Your task to perform on an android device: find which apps use the phone's location Image 0: 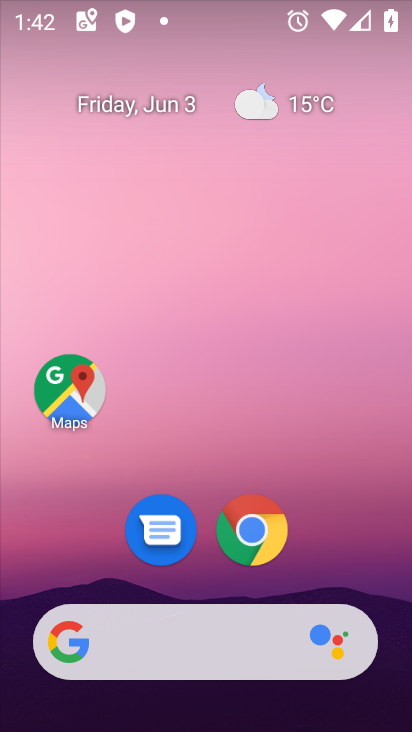
Step 0: drag from (362, 574) to (301, 112)
Your task to perform on an android device: find which apps use the phone's location Image 1: 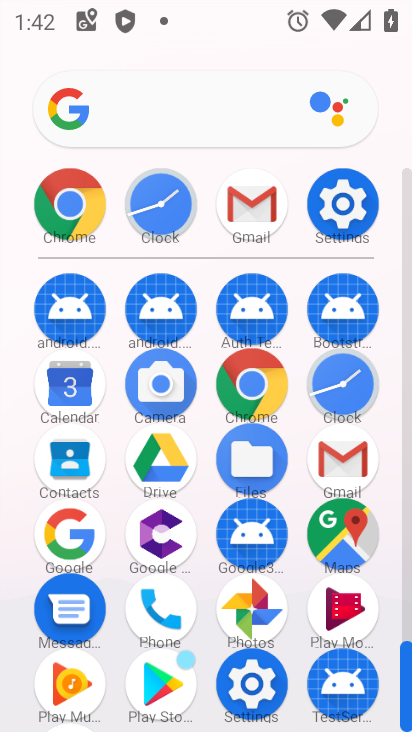
Step 1: click (348, 210)
Your task to perform on an android device: find which apps use the phone's location Image 2: 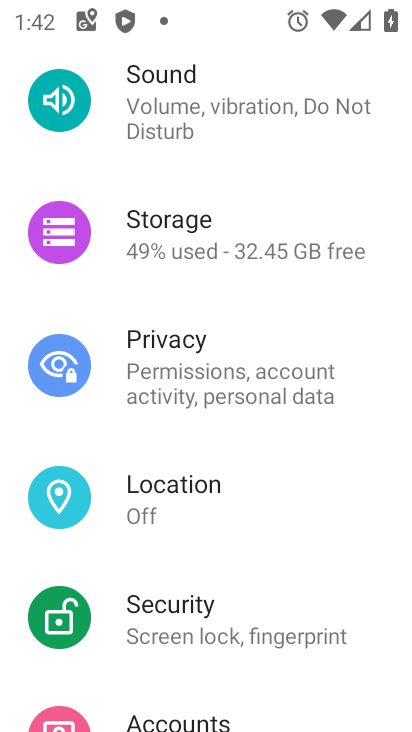
Step 2: click (262, 490)
Your task to perform on an android device: find which apps use the phone's location Image 3: 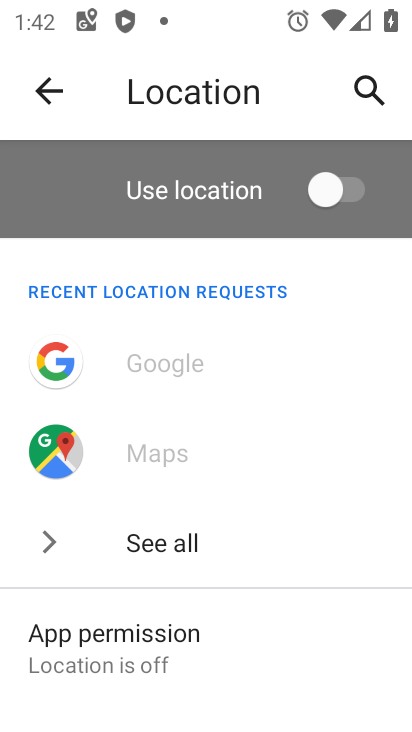
Step 3: click (194, 651)
Your task to perform on an android device: find which apps use the phone's location Image 4: 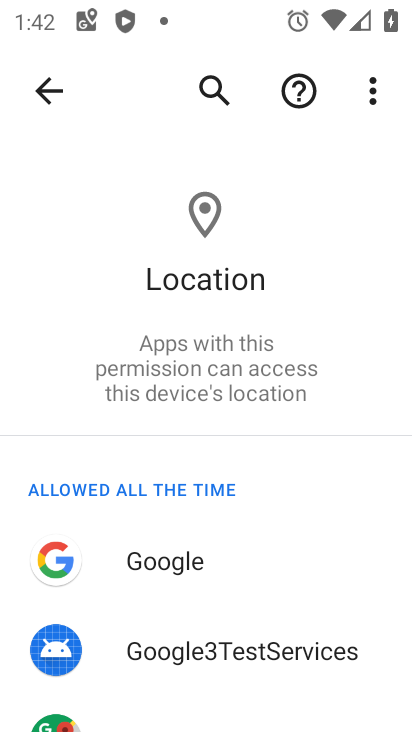
Step 4: task complete